Your task to perform on an android device: Open the phone app and click the voicemail tab. Image 0: 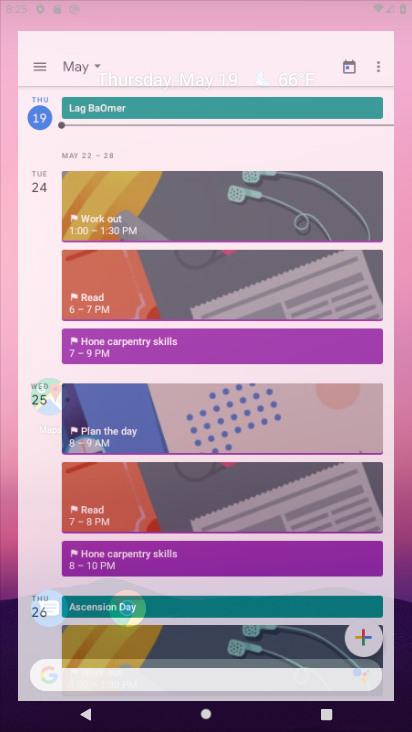
Step 0: press back button
Your task to perform on an android device: Open the phone app and click the voicemail tab. Image 1: 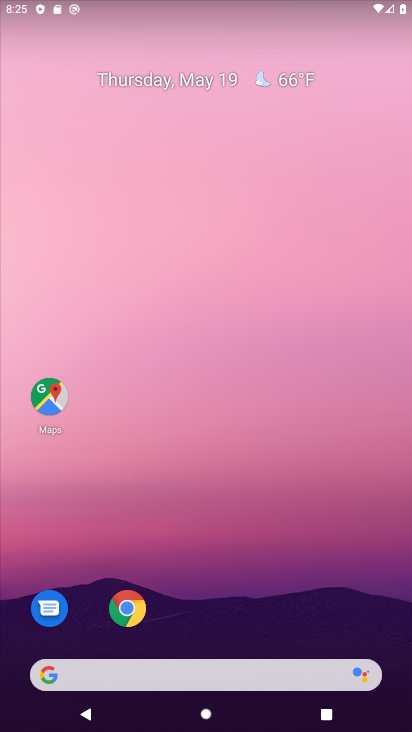
Step 1: press back button
Your task to perform on an android device: Open the phone app and click the voicemail tab. Image 2: 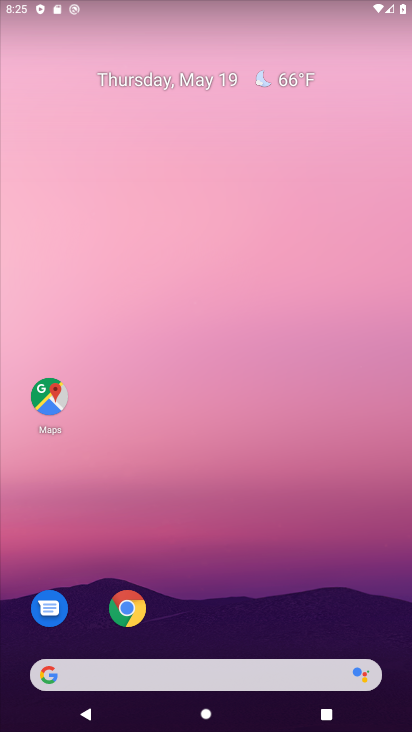
Step 2: drag from (270, 588) to (121, 168)
Your task to perform on an android device: Open the phone app and click the voicemail tab. Image 3: 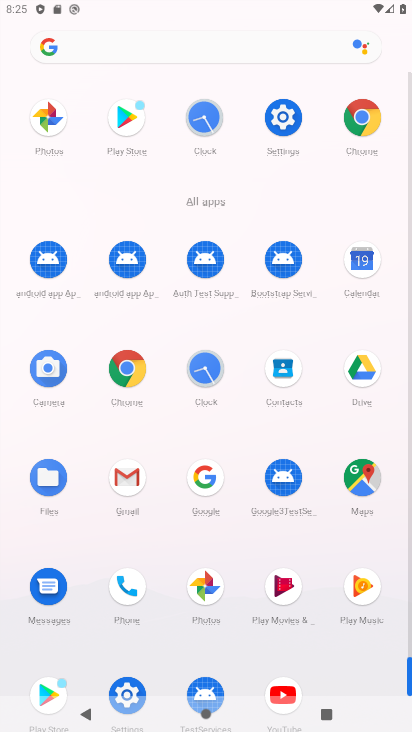
Step 3: click (125, 587)
Your task to perform on an android device: Open the phone app and click the voicemail tab. Image 4: 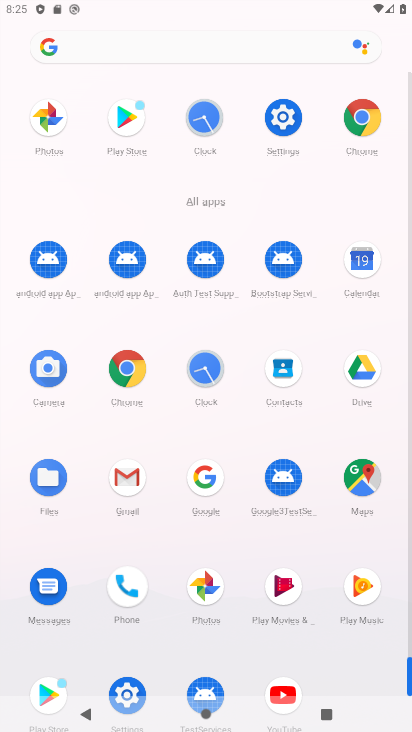
Step 4: click (126, 587)
Your task to perform on an android device: Open the phone app and click the voicemail tab. Image 5: 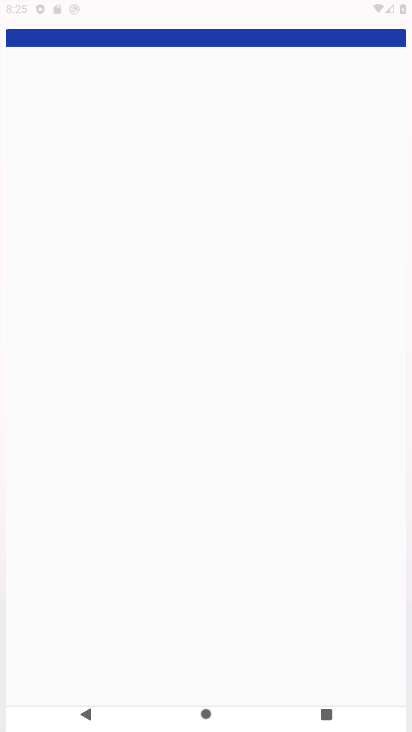
Step 5: click (126, 587)
Your task to perform on an android device: Open the phone app and click the voicemail tab. Image 6: 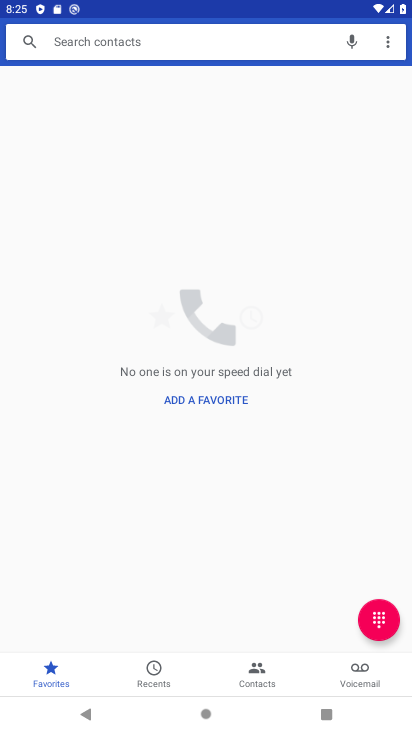
Step 6: click (375, 670)
Your task to perform on an android device: Open the phone app and click the voicemail tab. Image 7: 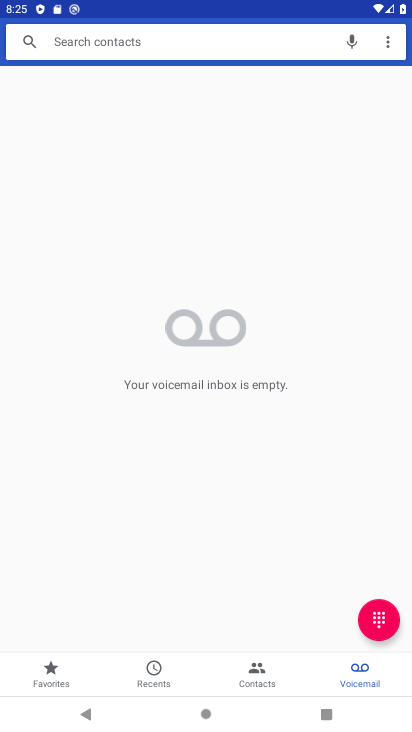
Step 7: task complete